Your task to perform on an android device: Open maps Image 0: 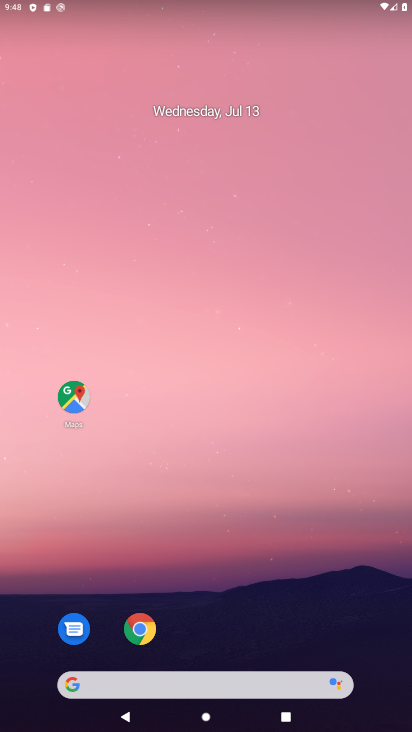
Step 0: click (72, 390)
Your task to perform on an android device: Open maps Image 1: 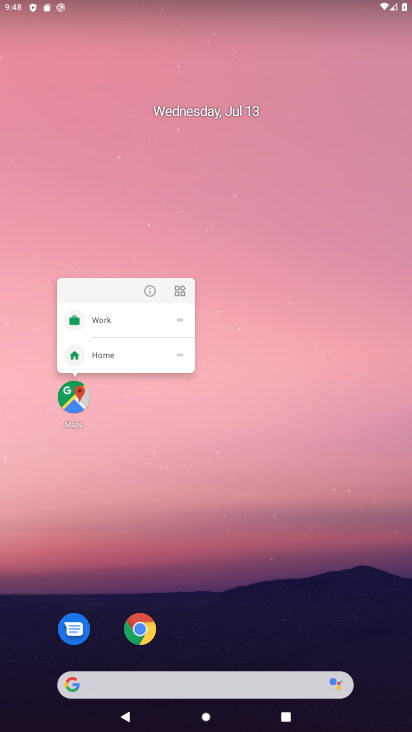
Step 1: click (73, 392)
Your task to perform on an android device: Open maps Image 2: 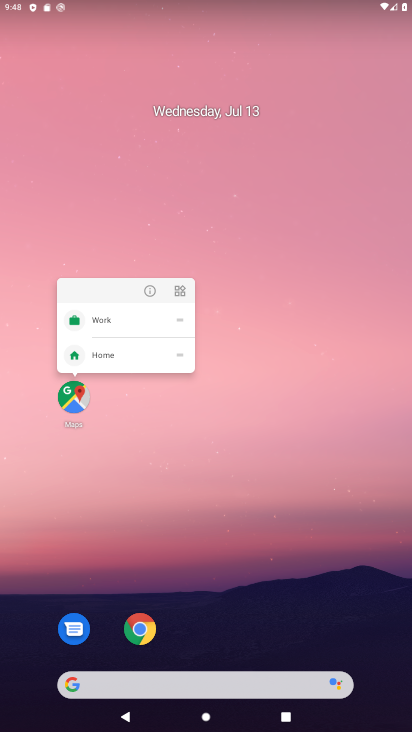
Step 2: click (67, 387)
Your task to perform on an android device: Open maps Image 3: 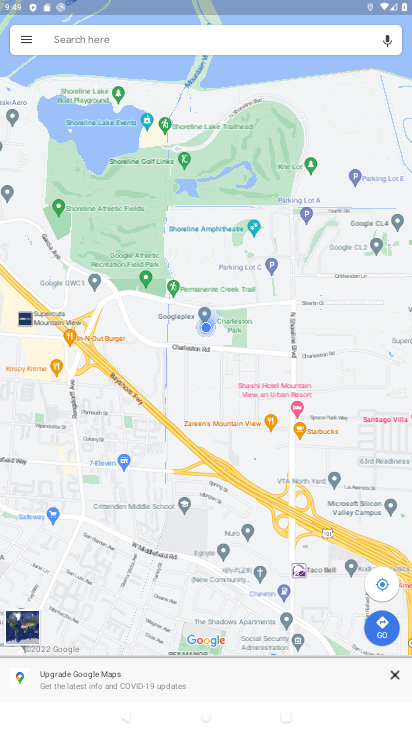
Step 3: task complete